Your task to perform on an android device: Open Google Image 0: 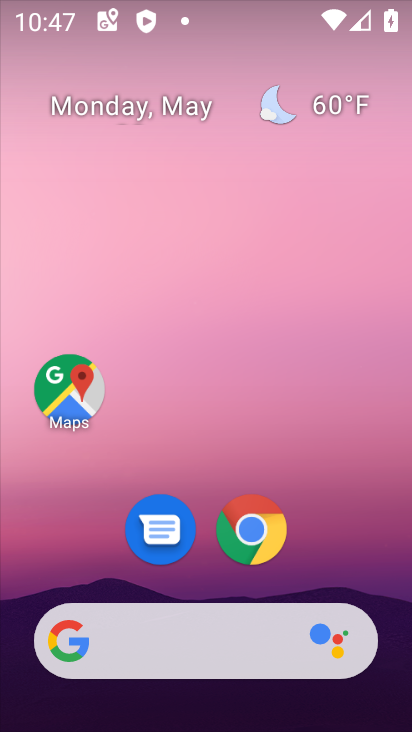
Step 0: click (73, 635)
Your task to perform on an android device: Open Google Image 1: 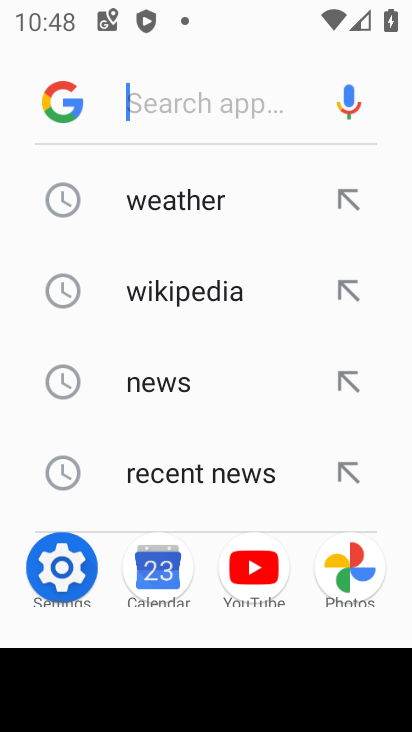
Step 1: click (63, 96)
Your task to perform on an android device: Open Google Image 2: 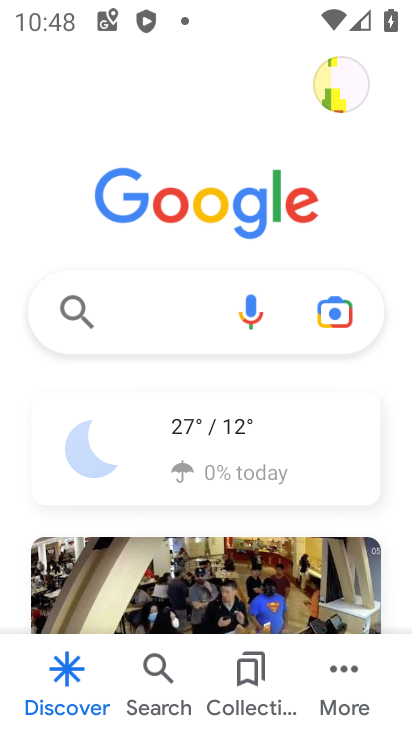
Step 2: task complete